Your task to perform on an android device: add a contact in the contacts app Image 0: 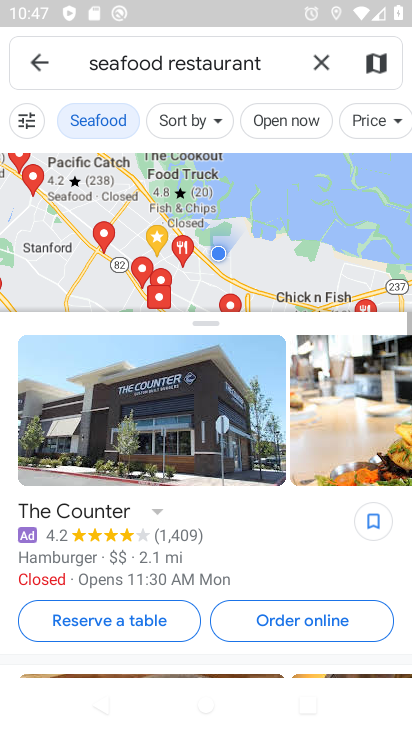
Step 0: press back button
Your task to perform on an android device: add a contact in the contacts app Image 1: 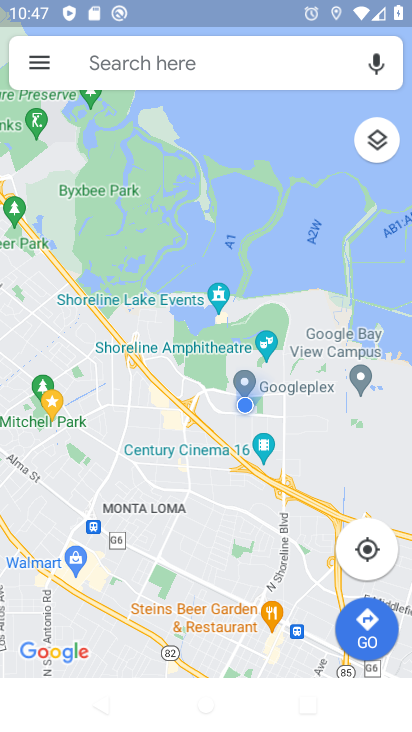
Step 1: press home button
Your task to perform on an android device: add a contact in the contacts app Image 2: 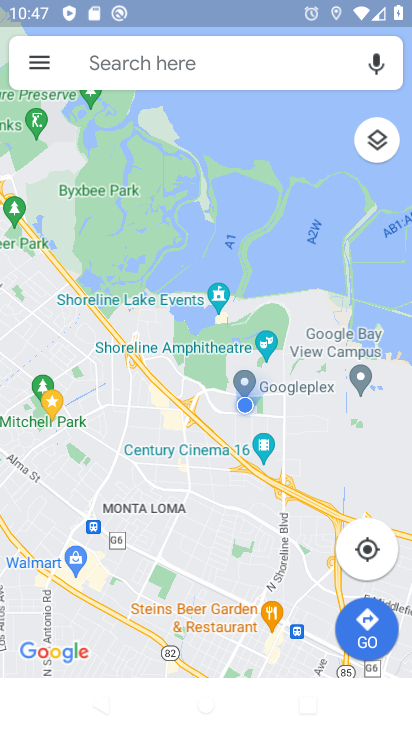
Step 2: press home button
Your task to perform on an android device: add a contact in the contacts app Image 3: 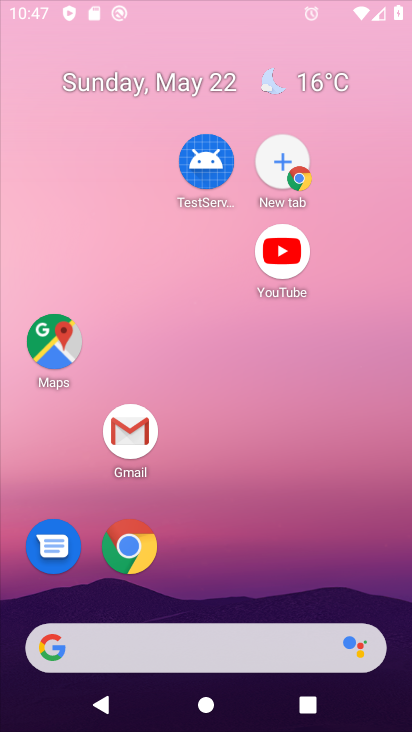
Step 3: press home button
Your task to perform on an android device: add a contact in the contacts app Image 4: 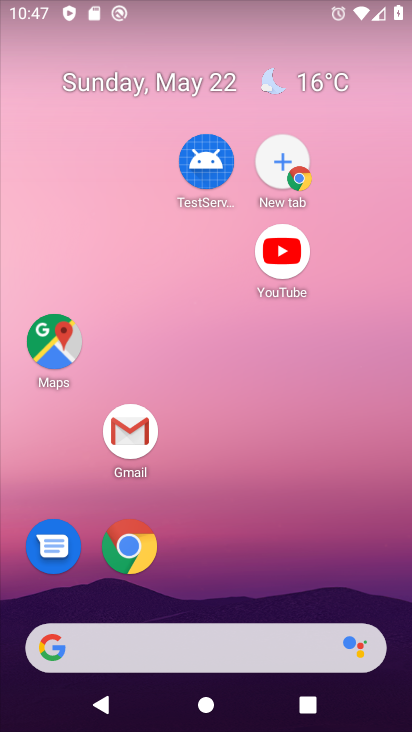
Step 4: press back button
Your task to perform on an android device: add a contact in the contacts app Image 5: 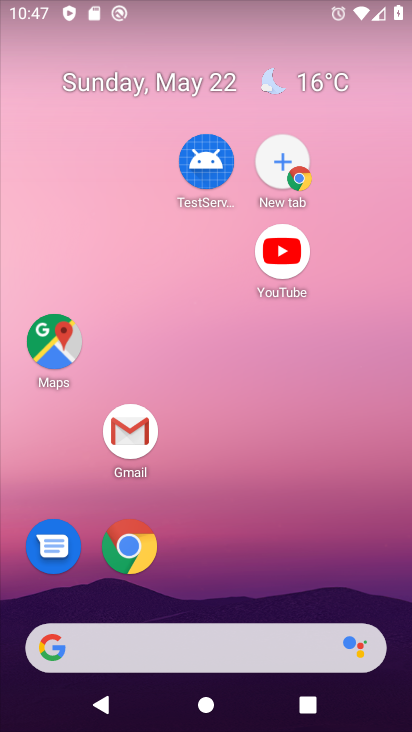
Step 5: drag from (285, 723) to (284, 38)
Your task to perform on an android device: add a contact in the contacts app Image 6: 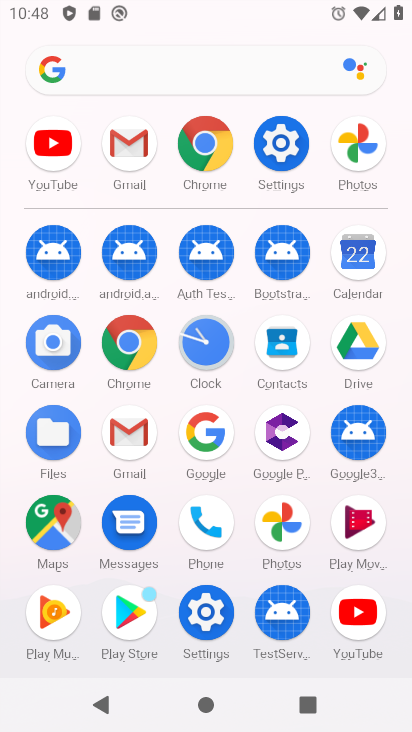
Step 6: click (285, 345)
Your task to perform on an android device: add a contact in the contacts app Image 7: 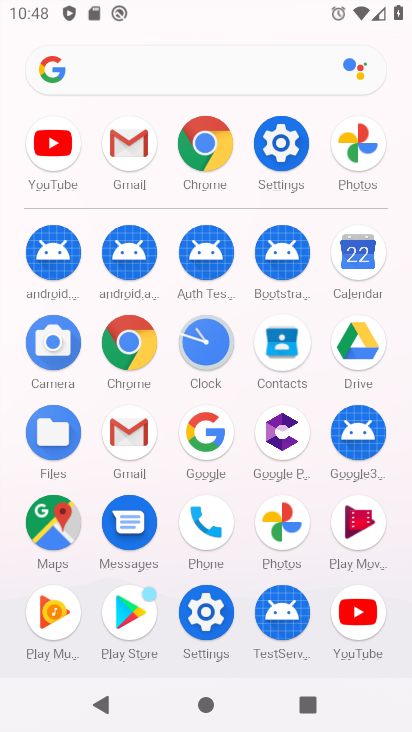
Step 7: click (285, 343)
Your task to perform on an android device: add a contact in the contacts app Image 8: 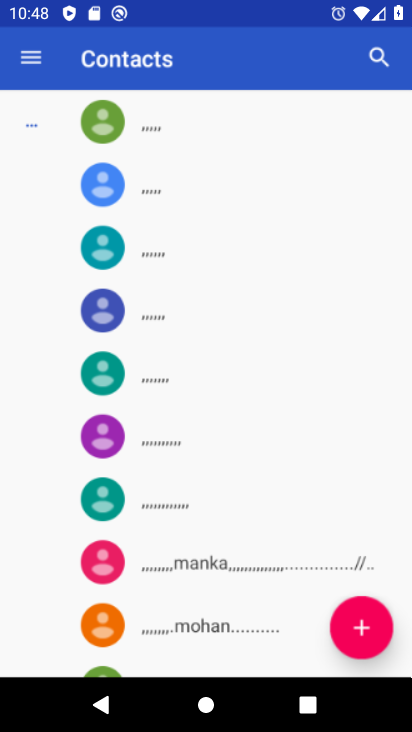
Step 8: click (287, 344)
Your task to perform on an android device: add a contact in the contacts app Image 9: 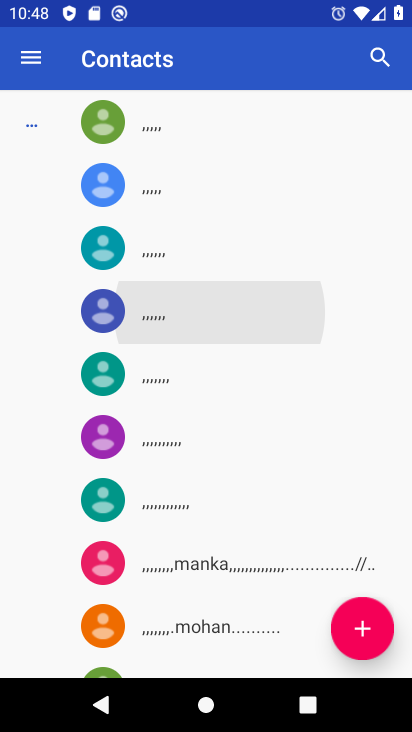
Step 9: click (287, 344)
Your task to perform on an android device: add a contact in the contacts app Image 10: 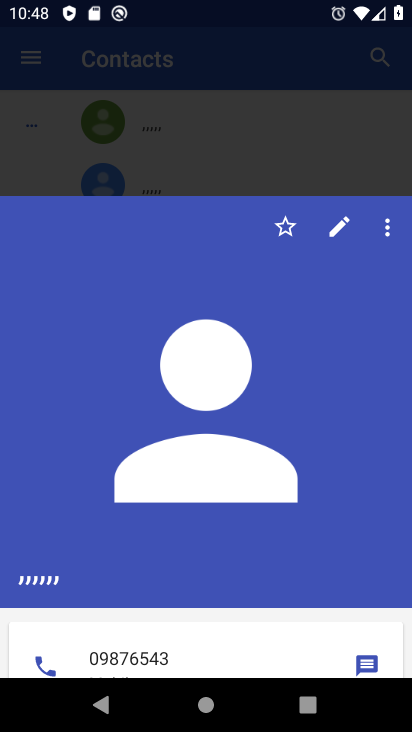
Step 10: press back button
Your task to perform on an android device: add a contact in the contacts app Image 11: 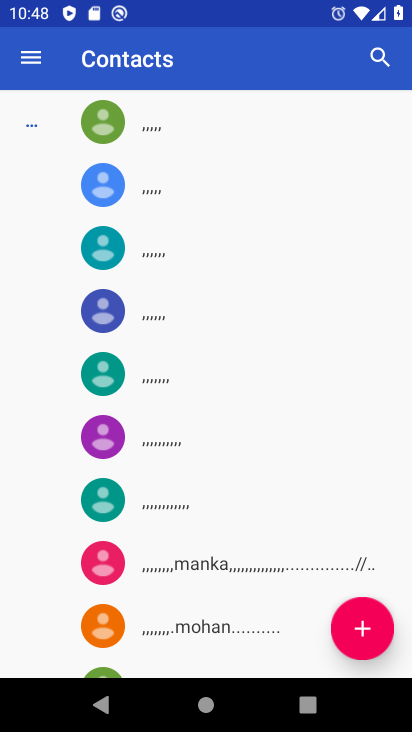
Step 11: click (366, 622)
Your task to perform on an android device: add a contact in the contacts app Image 12: 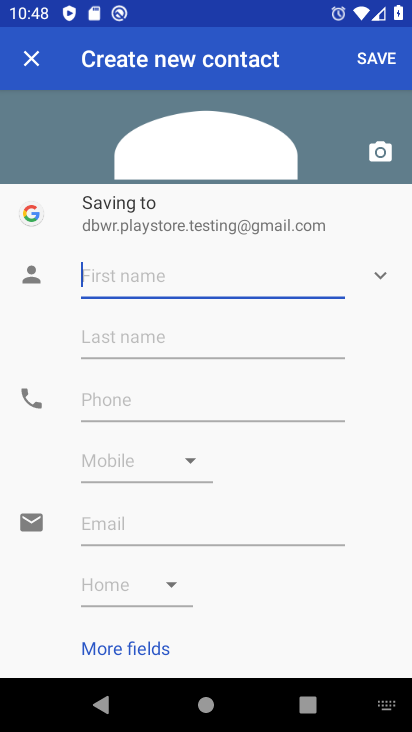
Step 12: type "jhgfjhghjhgiuiu"
Your task to perform on an android device: add a contact in the contacts app Image 13: 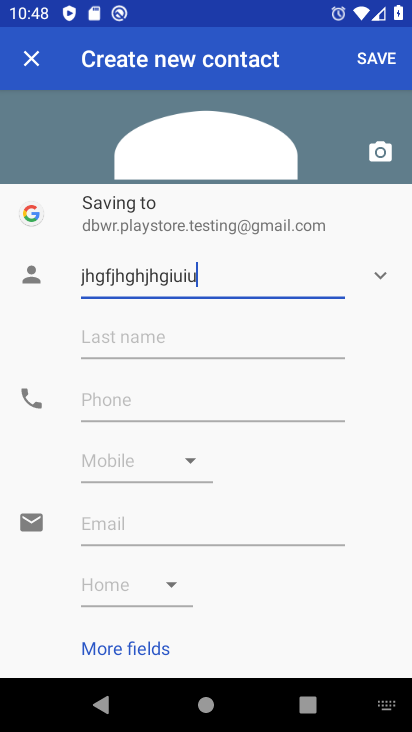
Step 13: click (107, 338)
Your task to perform on an android device: add a contact in the contacts app Image 14: 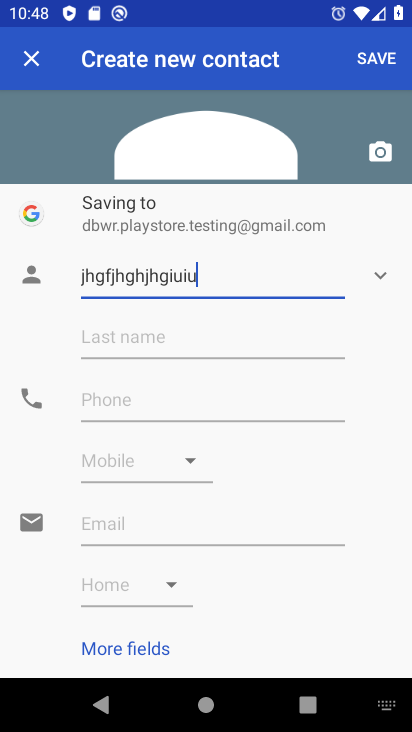
Step 14: click (107, 338)
Your task to perform on an android device: add a contact in the contacts app Image 15: 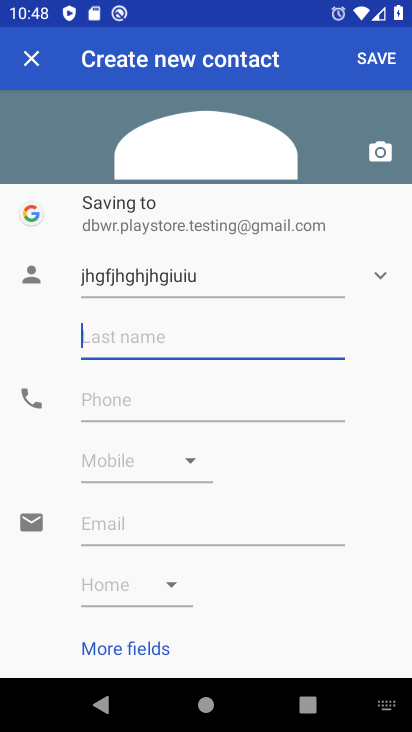
Step 15: click (91, 407)
Your task to perform on an android device: add a contact in the contacts app Image 16: 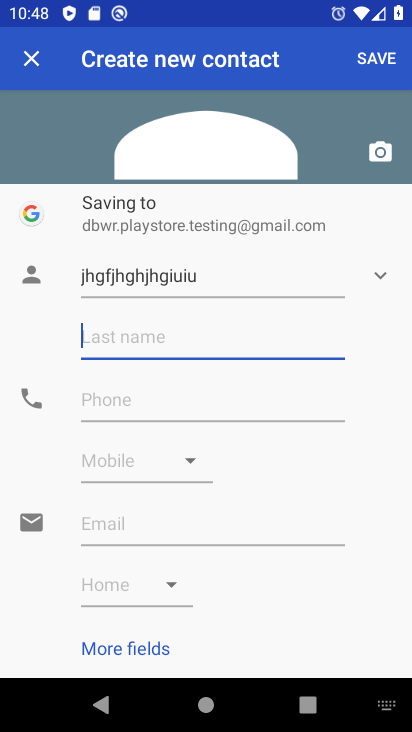
Step 16: click (91, 407)
Your task to perform on an android device: add a contact in the contacts app Image 17: 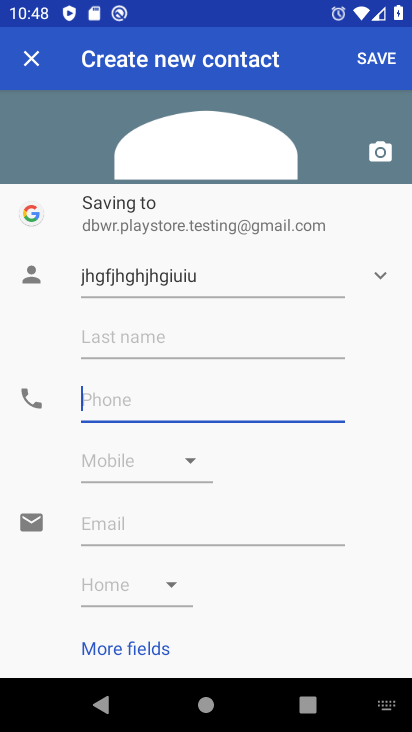
Step 17: click (91, 407)
Your task to perform on an android device: add a contact in the contacts app Image 18: 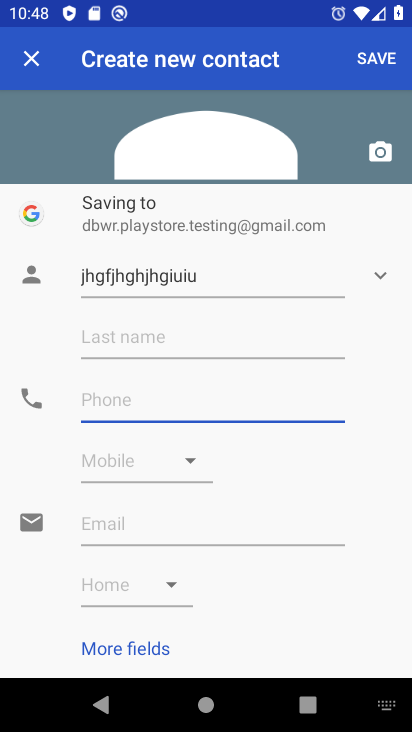
Step 18: click (91, 407)
Your task to perform on an android device: add a contact in the contacts app Image 19: 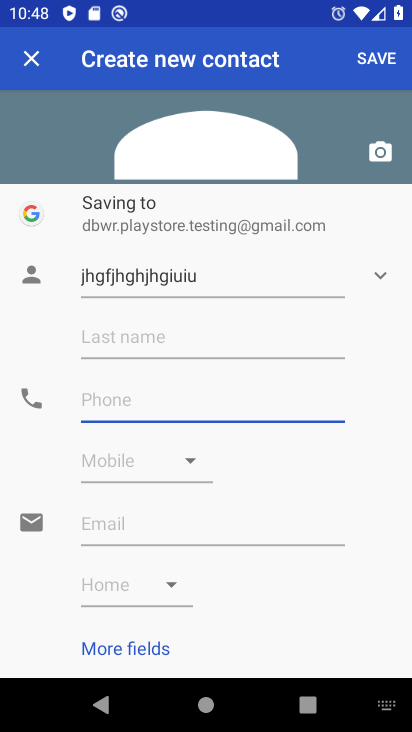
Step 19: click (91, 407)
Your task to perform on an android device: add a contact in the contacts app Image 20: 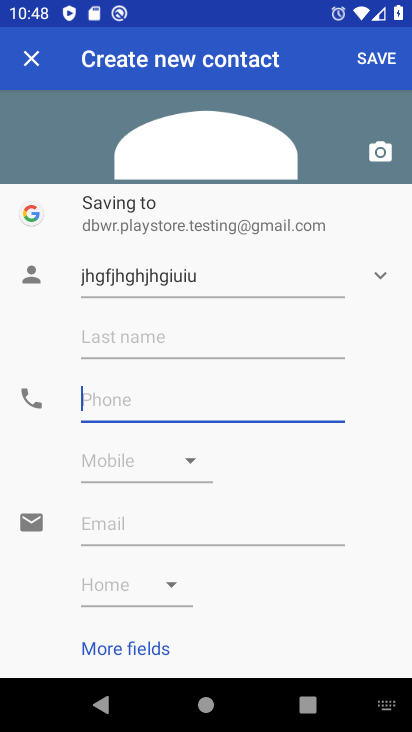
Step 20: type "5786678987898"
Your task to perform on an android device: add a contact in the contacts app Image 21: 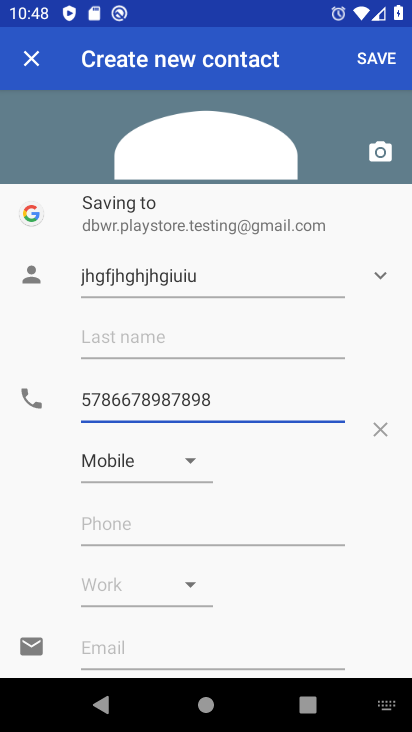
Step 21: click (382, 62)
Your task to perform on an android device: add a contact in the contacts app Image 22: 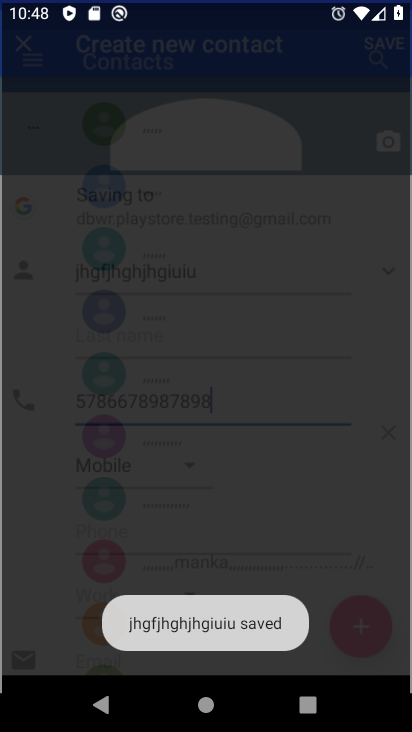
Step 22: click (382, 62)
Your task to perform on an android device: add a contact in the contacts app Image 23: 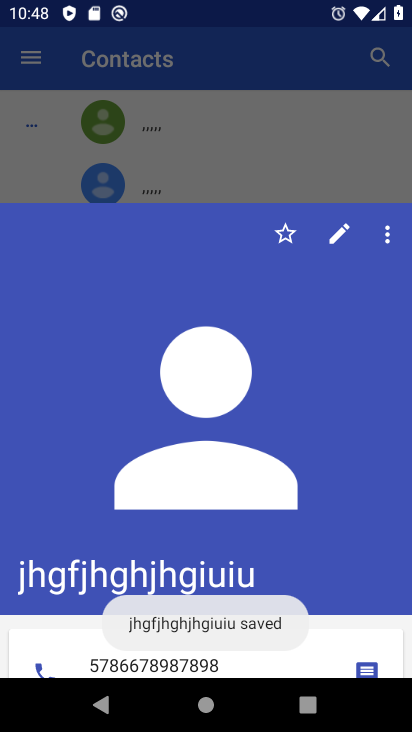
Step 23: click (382, 62)
Your task to perform on an android device: add a contact in the contacts app Image 24: 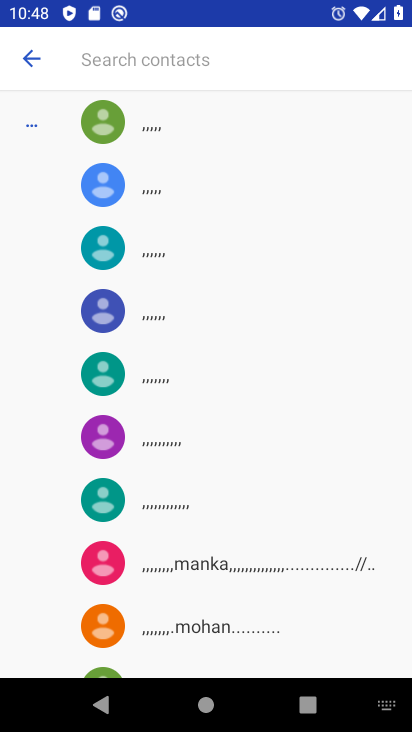
Step 24: task complete